Your task to perform on an android device: open chrome privacy settings Image 0: 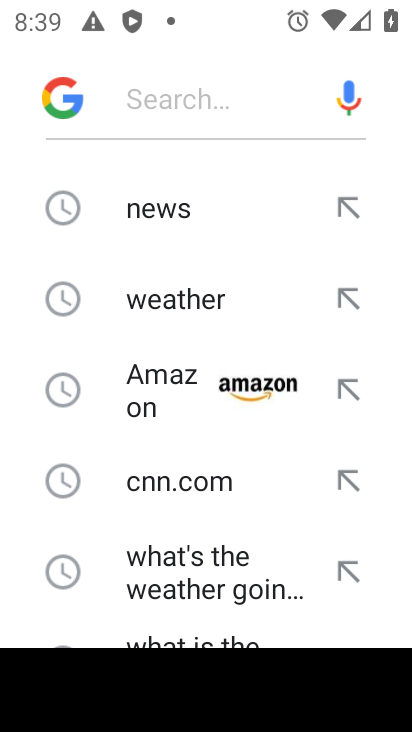
Step 0: press home button
Your task to perform on an android device: open chrome privacy settings Image 1: 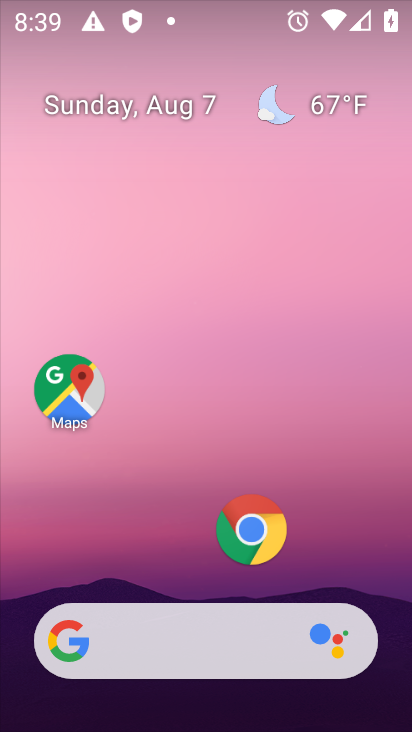
Step 1: click (252, 522)
Your task to perform on an android device: open chrome privacy settings Image 2: 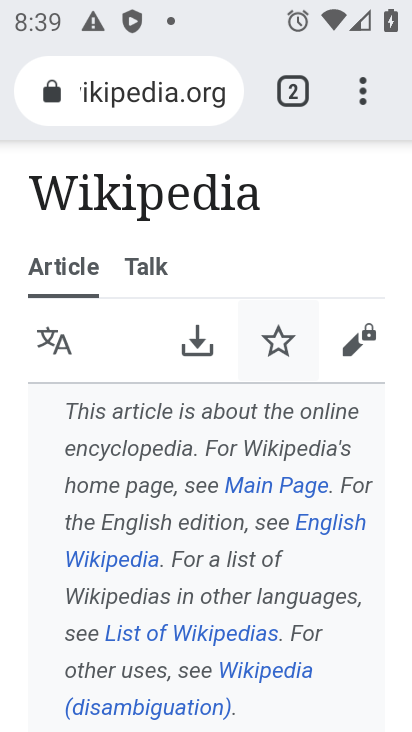
Step 2: click (362, 91)
Your task to perform on an android device: open chrome privacy settings Image 3: 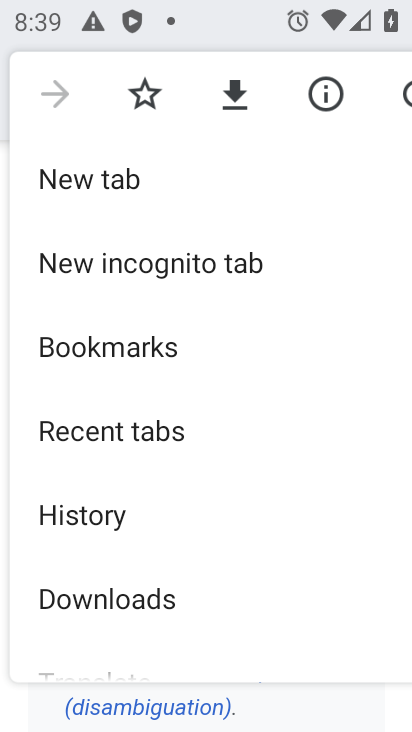
Step 3: drag from (167, 538) to (189, 183)
Your task to perform on an android device: open chrome privacy settings Image 4: 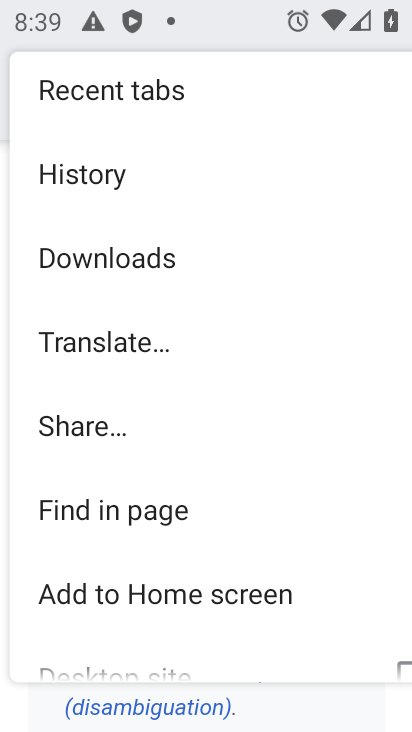
Step 4: drag from (137, 605) to (184, 262)
Your task to perform on an android device: open chrome privacy settings Image 5: 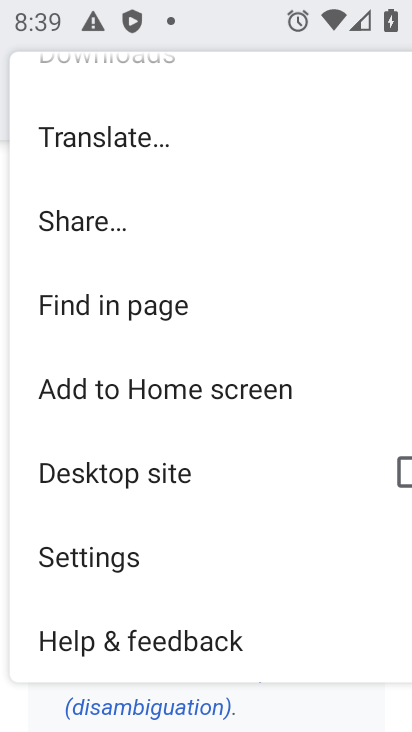
Step 5: click (98, 563)
Your task to perform on an android device: open chrome privacy settings Image 6: 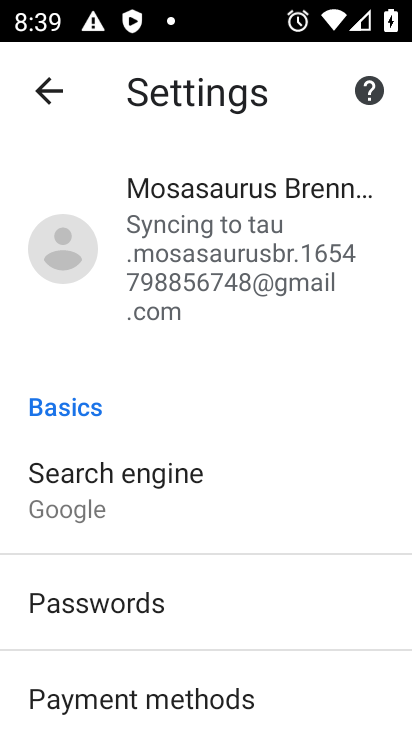
Step 6: drag from (133, 622) to (172, 203)
Your task to perform on an android device: open chrome privacy settings Image 7: 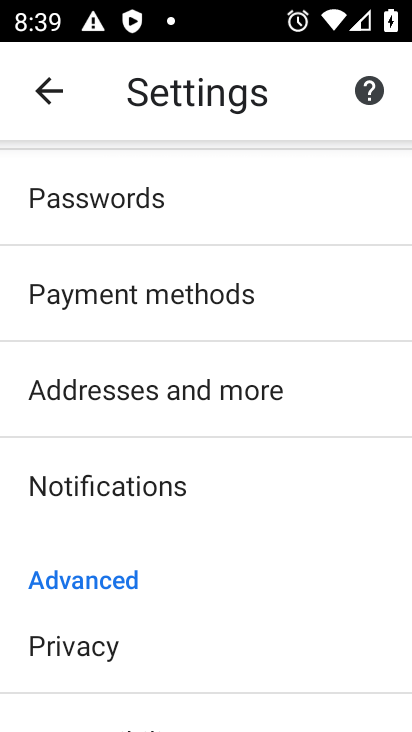
Step 7: drag from (145, 578) to (147, 291)
Your task to perform on an android device: open chrome privacy settings Image 8: 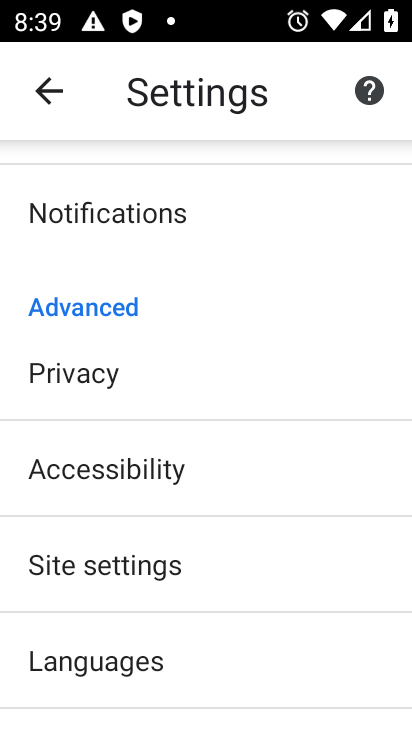
Step 8: drag from (105, 578) to (158, 209)
Your task to perform on an android device: open chrome privacy settings Image 9: 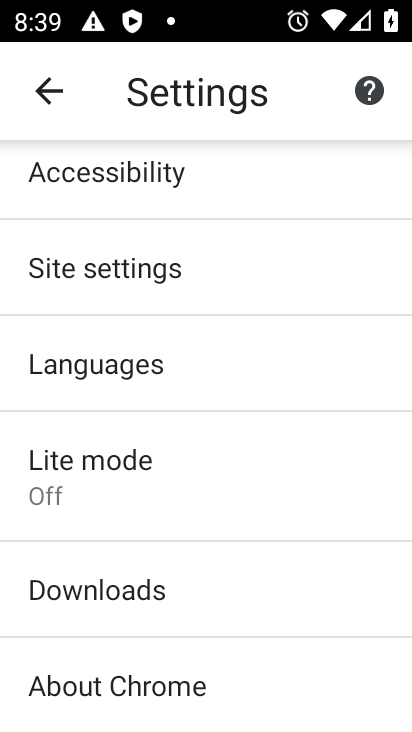
Step 9: drag from (126, 485) to (125, 607)
Your task to perform on an android device: open chrome privacy settings Image 10: 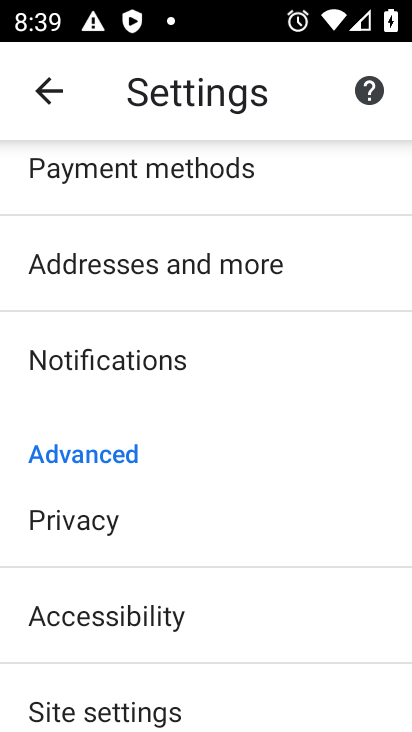
Step 10: click (83, 532)
Your task to perform on an android device: open chrome privacy settings Image 11: 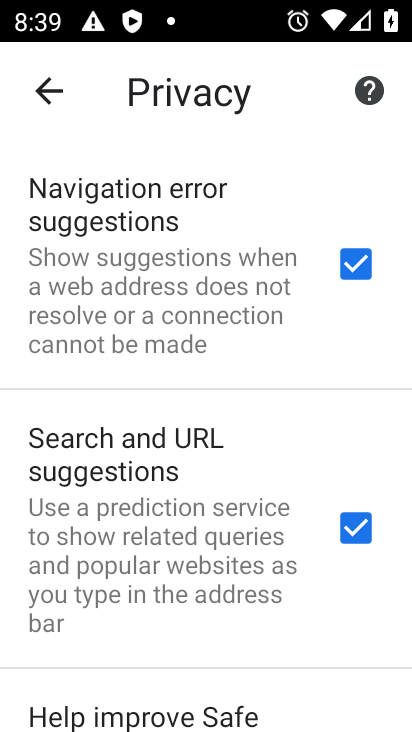
Step 11: task complete